Your task to perform on an android device: manage bookmarks in the chrome app Image 0: 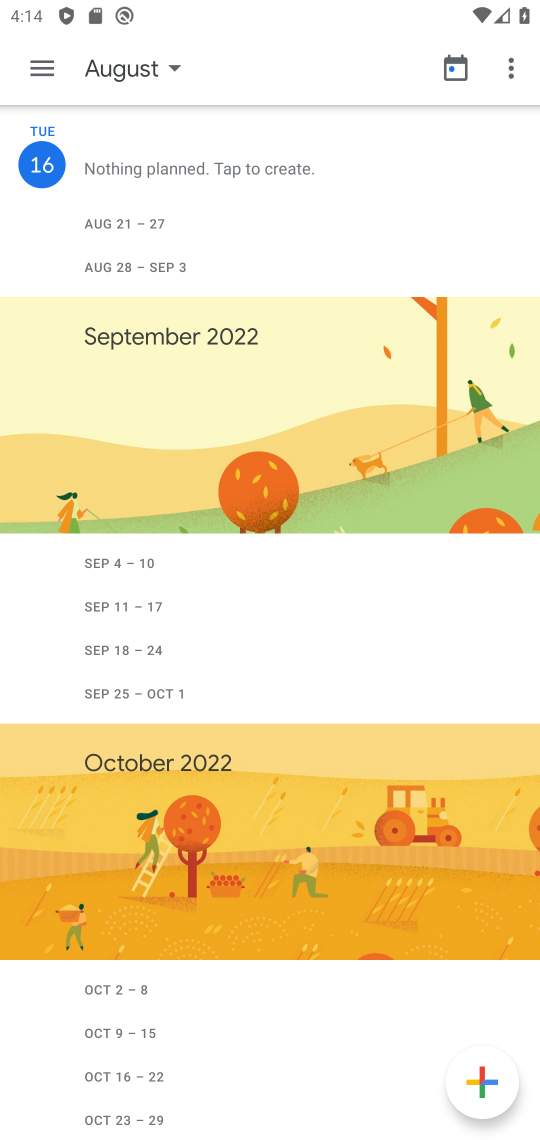
Step 0: press home button
Your task to perform on an android device: manage bookmarks in the chrome app Image 1: 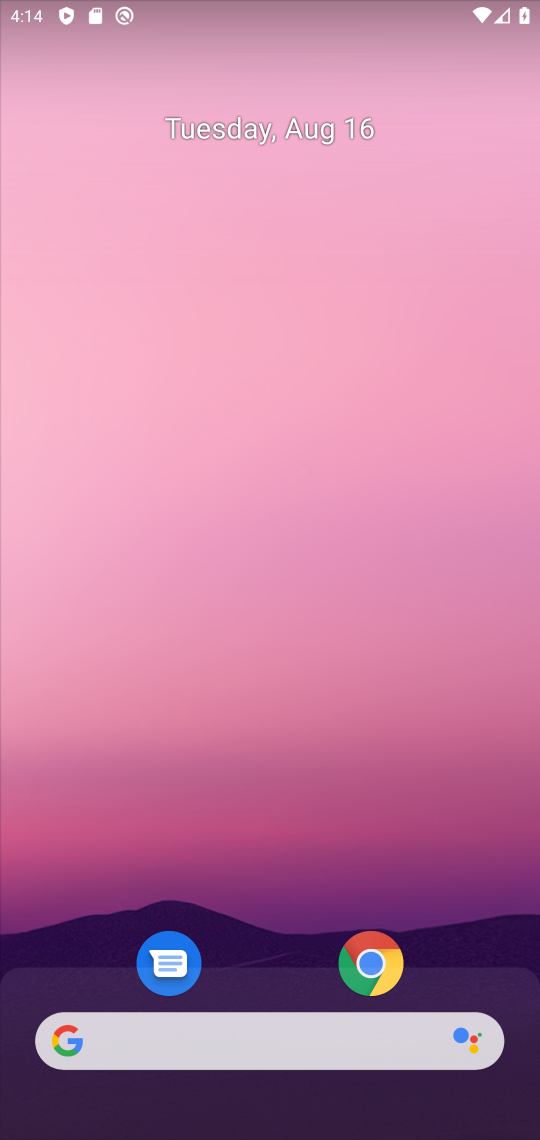
Step 1: drag from (252, 929) to (198, 21)
Your task to perform on an android device: manage bookmarks in the chrome app Image 2: 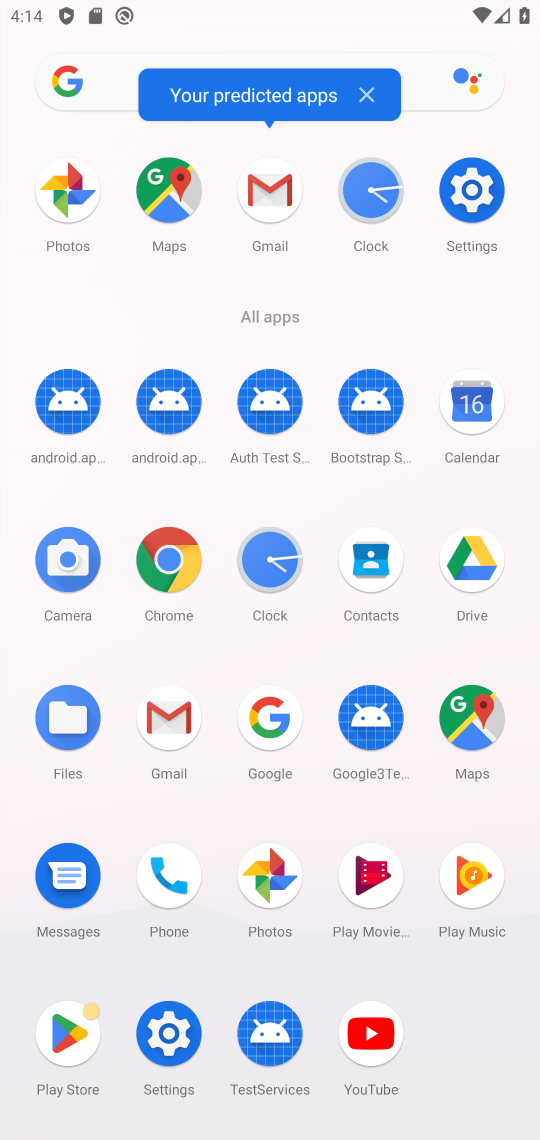
Step 2: click (481, 182)
Your task to perform on an android device: manage bookmarks in the chrome app Image 3: 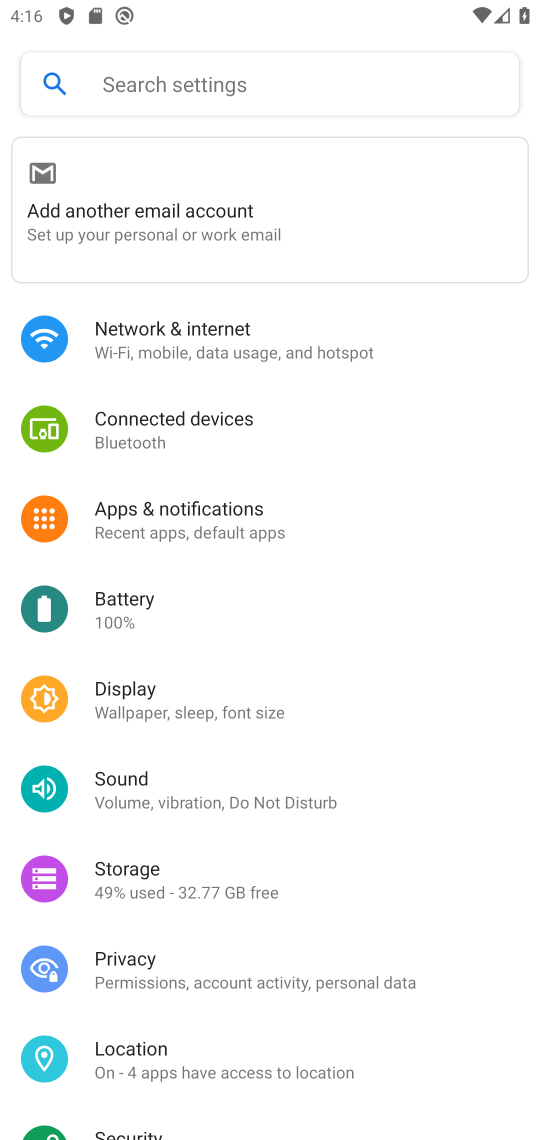
Step 3: press home button
Your task to perform on an android device: manage bookmarks in the chrome app Image 4: 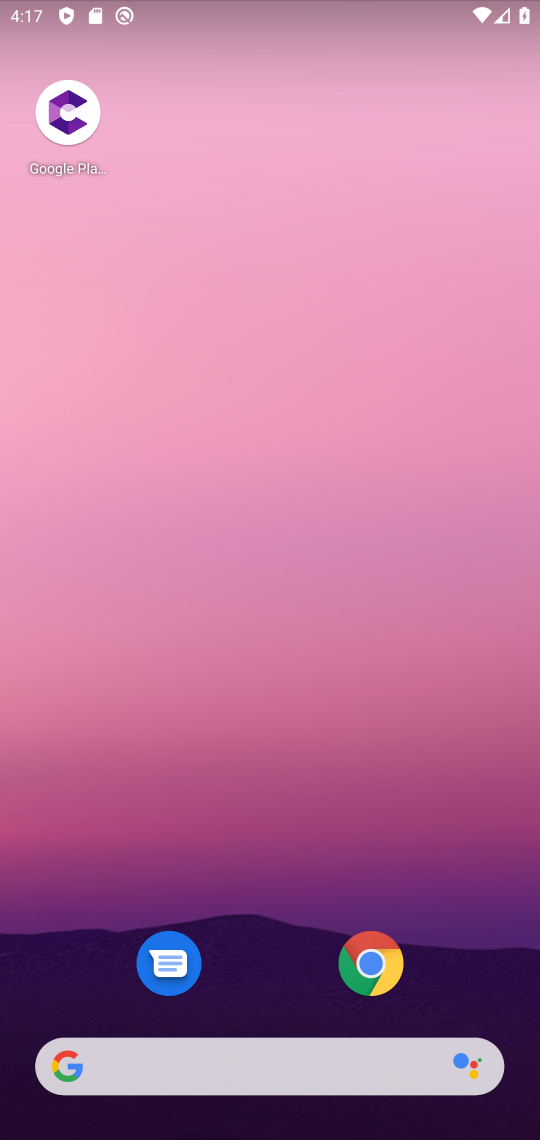
Step 4: click (362, 963)
Your task to perform on an android device: manage bookmarks in the chrome app Image 5: 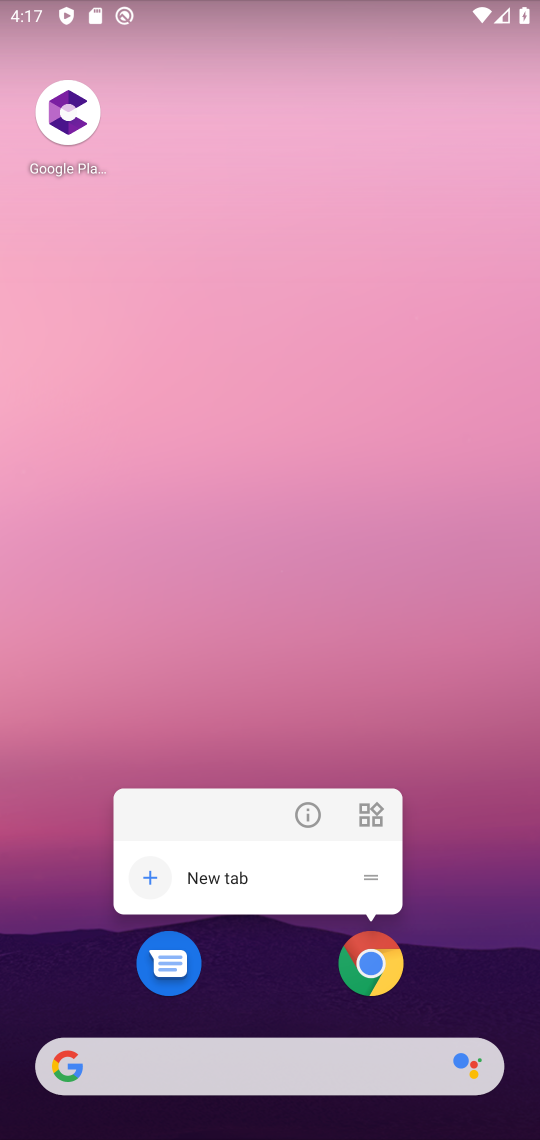
Step 5: click (373, 985)
Your task to perform on an android device: manage bookmarks in the chrome app Image 6: 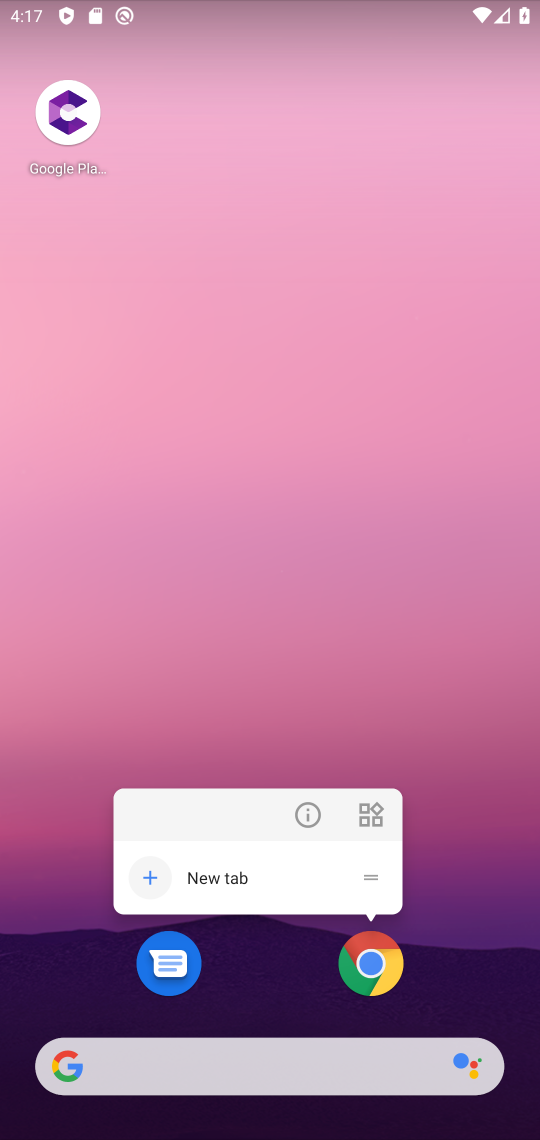
Step 6: click (373, 985)
Your task to perform on an android device: manage bookmarks in the chrome app Image 7: 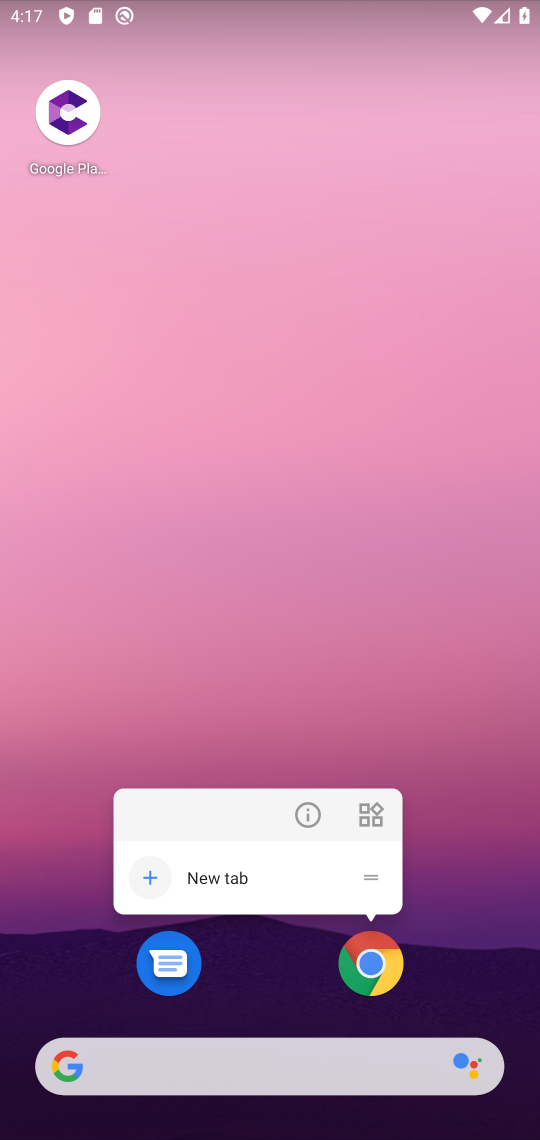
Step 7: click (368, 975)
Your task to perform on an android device: manage bookmarks in the chrome app Image 8: 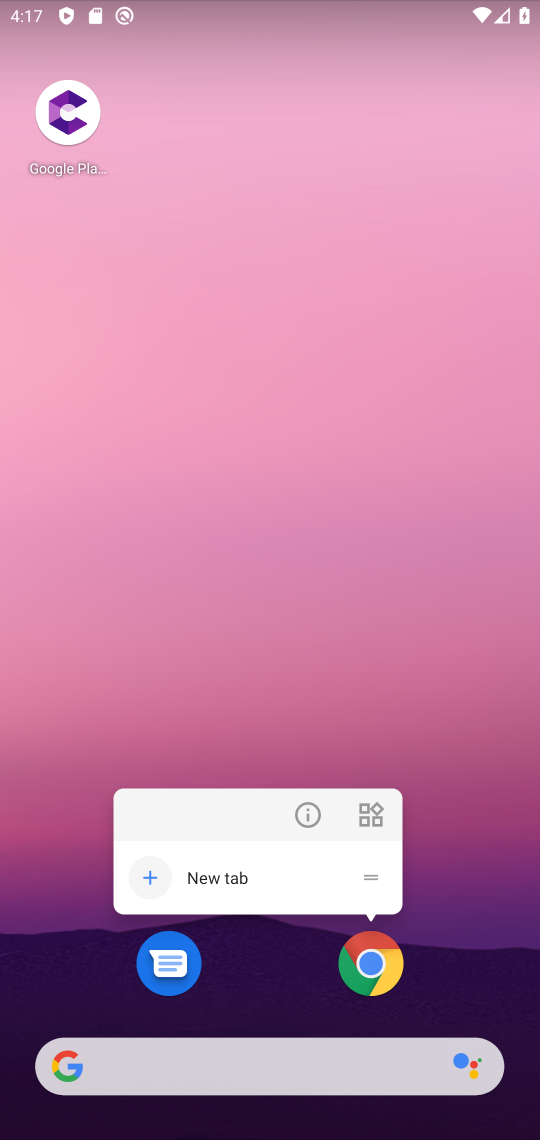
Step 8: click (368, 975)
Your task to perform on an android device: manage bookmarks in the chrome app Image 9: 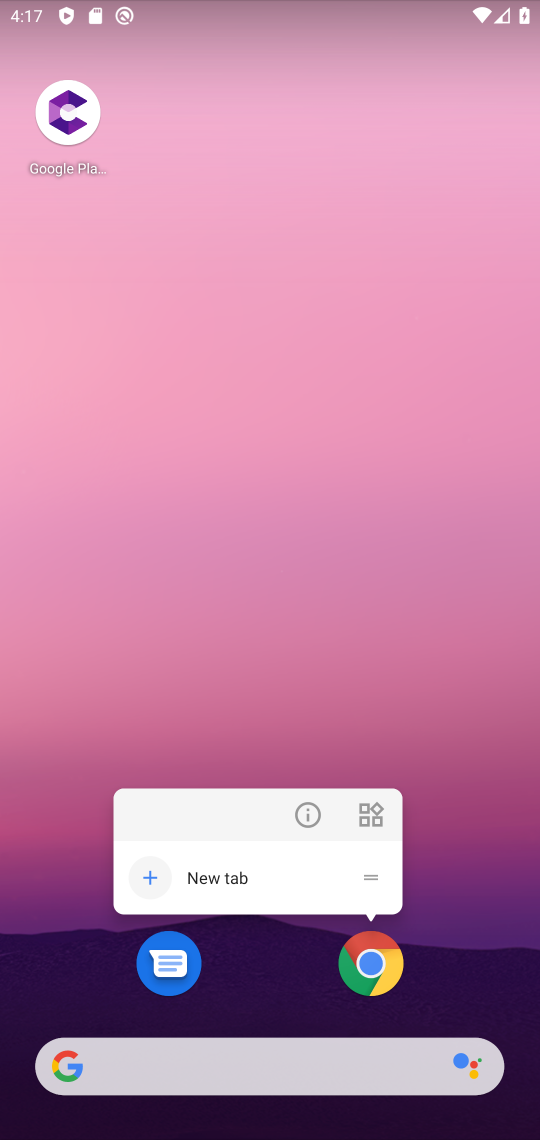
Step 9: click (393, 971)
Your task to perform on an android device: manage bookmarks in the chrome app Image 10: 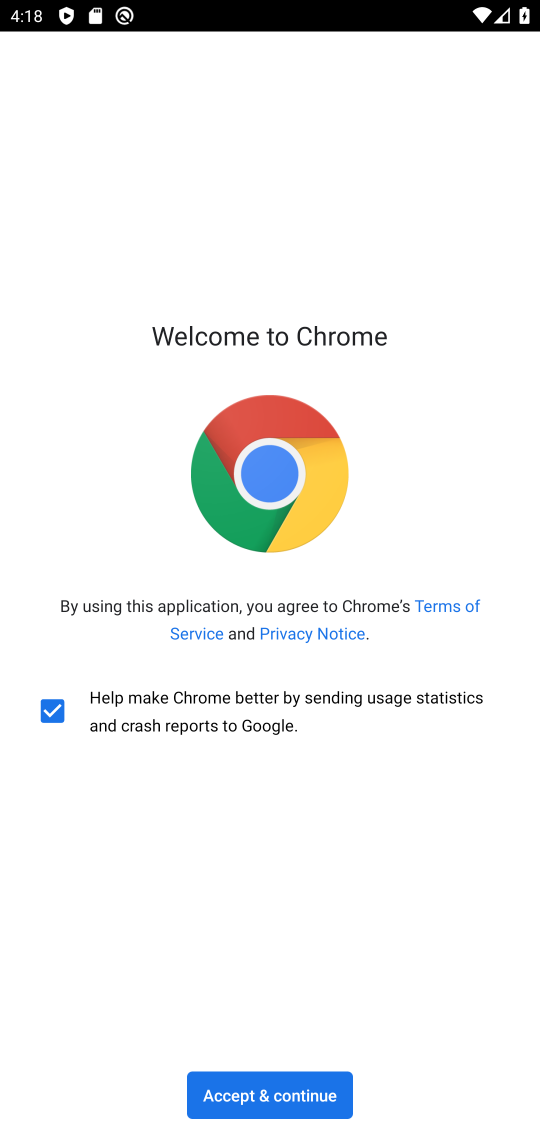
Step 10: click (297, 1098)
Your task to perform on an android device: manage bookmarks in the chrome app Image 11: 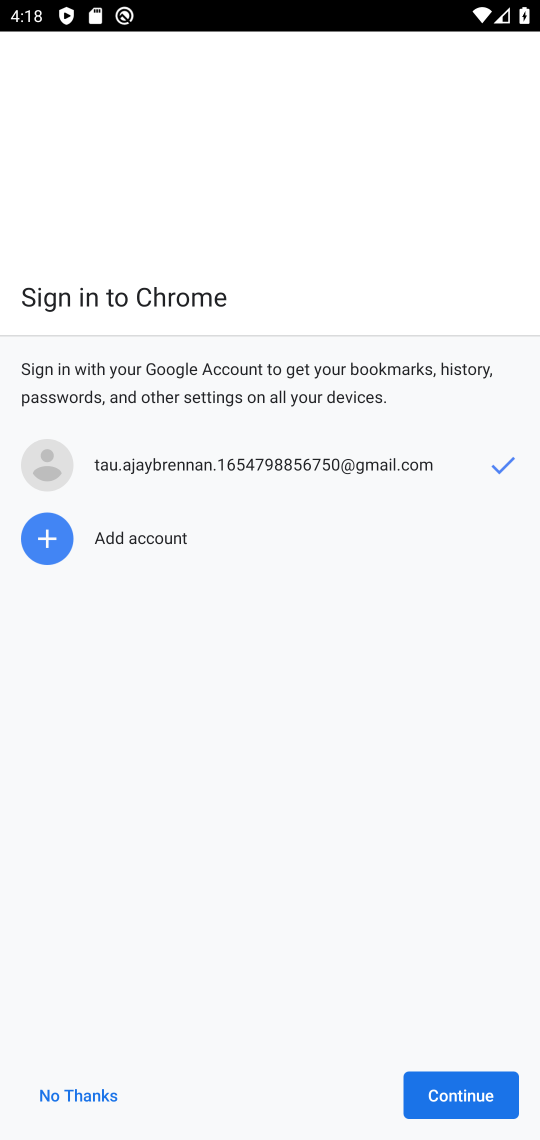
Step 11: click (440, 1097)
Your task to perform on an android device: manage bookmarks in the chrome app Image 12: 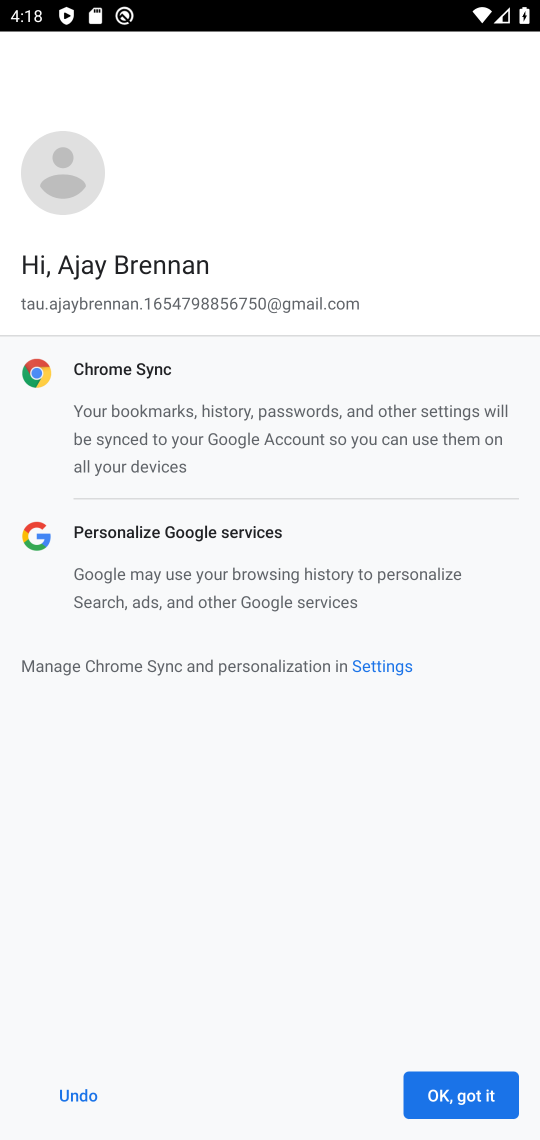
Step 12: click (460, 1087)
Your task to perform on an android device: manage bookmarks in the chrome app Image 13: 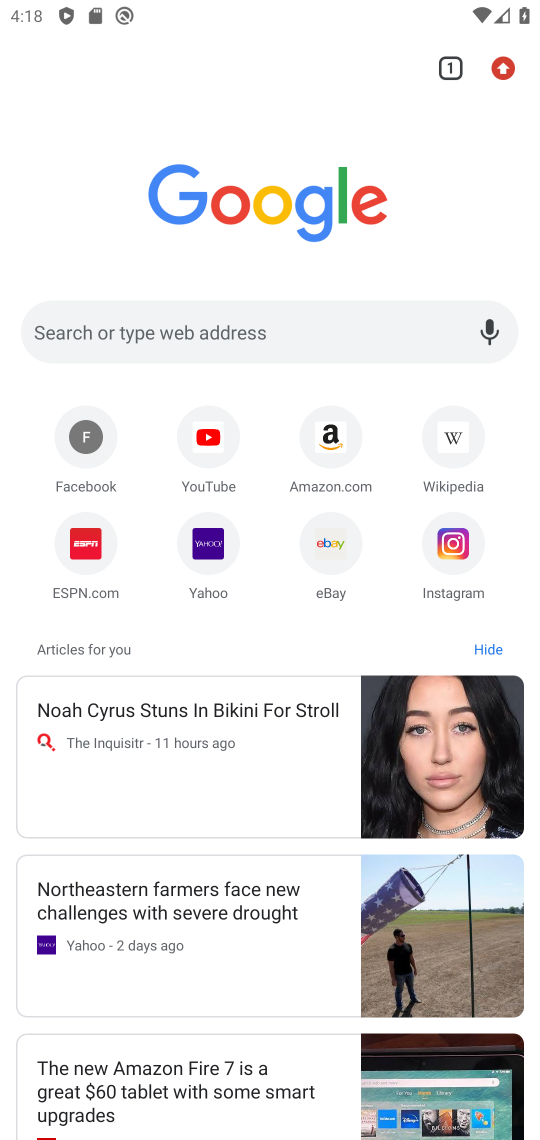
Step 13: task complete